Your task to perform on an android device: Do I have any events this weekend? Image 0: 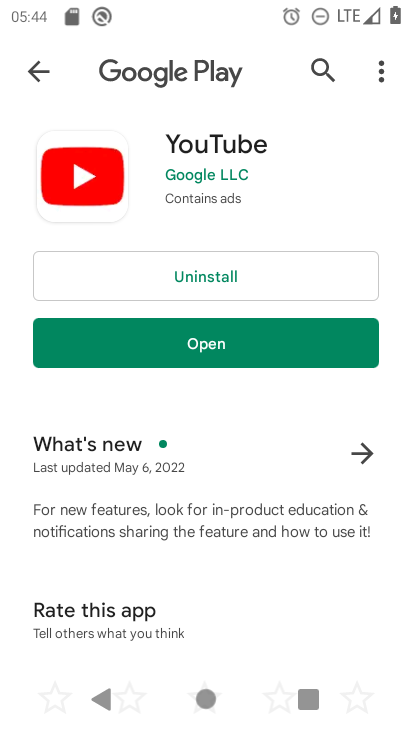
Step 0: press home button
Your task to perform on an android device: Do I have any events this weekend? Image 1: 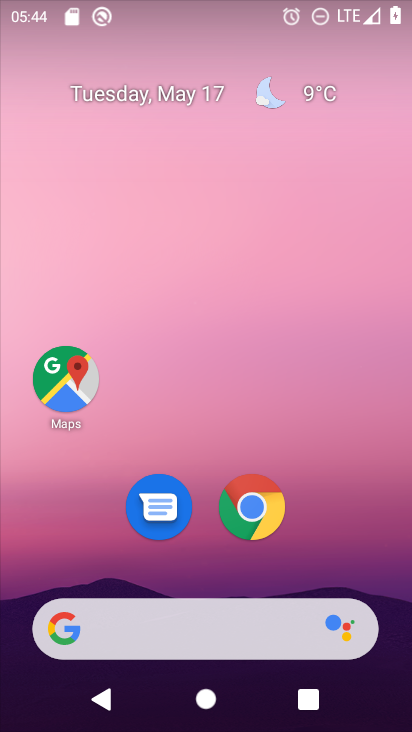
Step 1: click (173, 79)
Your task to perform on an android device: Do I have any events this weekend? Image 2: 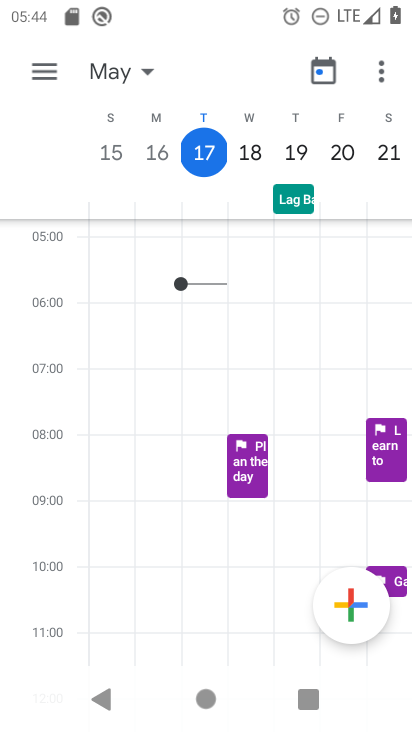
Step 2: task complete